Your task to perform on an android device: Go to battery settings Image 0: 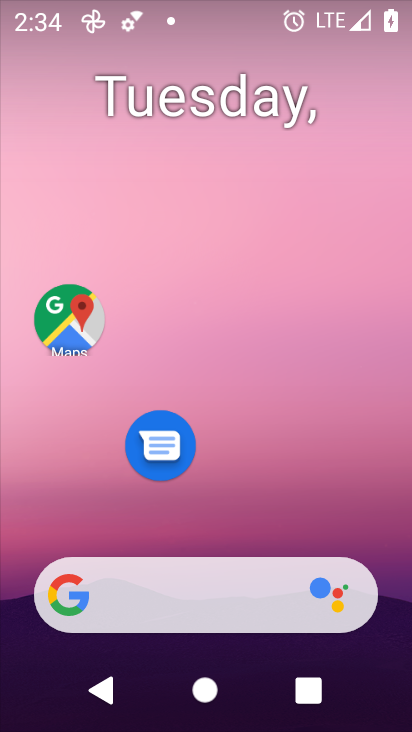
Step 0: drag from (287, 507) to (131, 36)
Your task to perform on an android device: Go to battery settings Image 1: 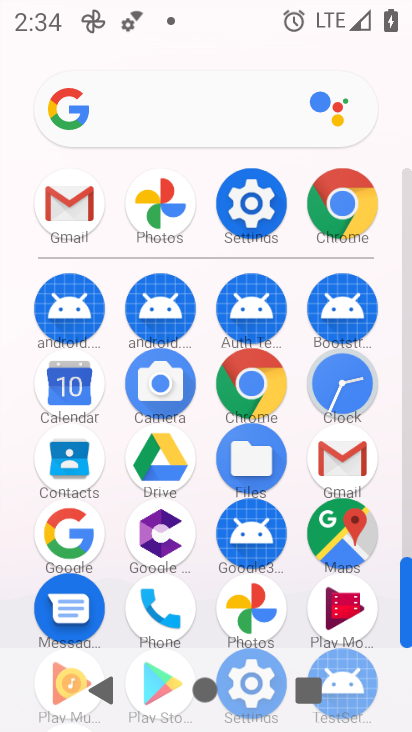
Step 1: click (249, 199)
Your task to perform on an android device: Go to battery settings Image 2: 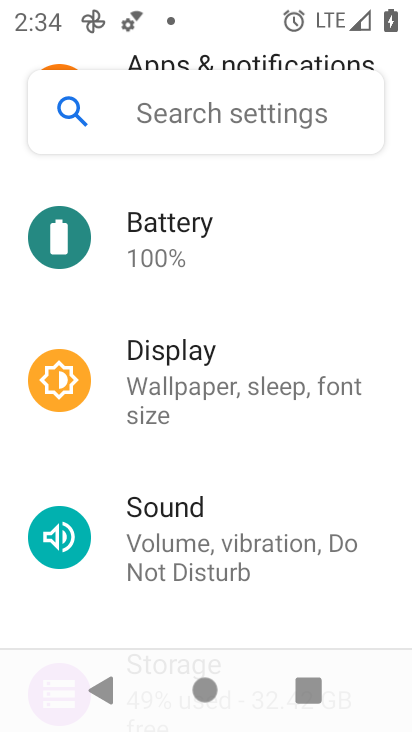
Step 2: click (161, 229)
Your task to perform on an android device: Go to battery settings Image 3: 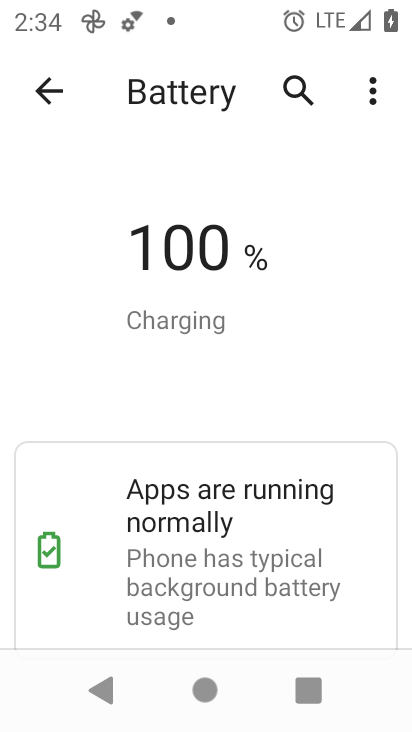
Step 3: task complete